Your task to perform on an android device: toggle show notifications on the lock screen Image 0: 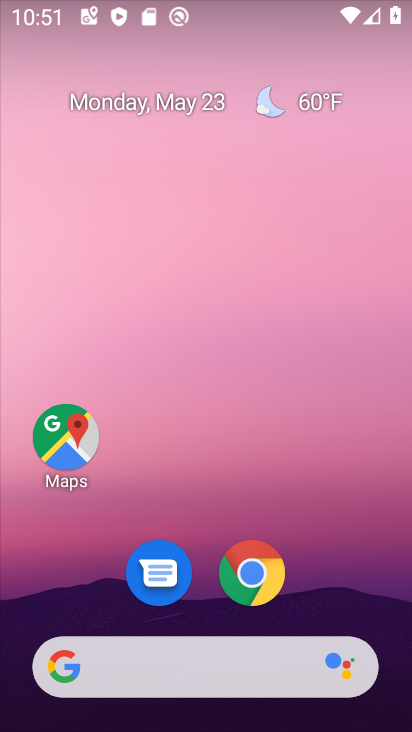
Step 0: drag from (338, 561) to (258, 19)
Your task to perform on an android device: toggle show notifications on the lock screen Image 1: 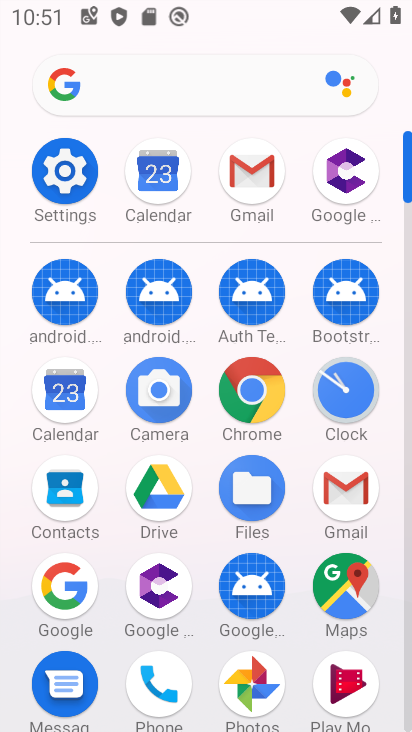
Step 1: drag from (20, 519) to (21, 191)
Your task to perform on an android device: toggle show notifications on the lock screen Image 2: 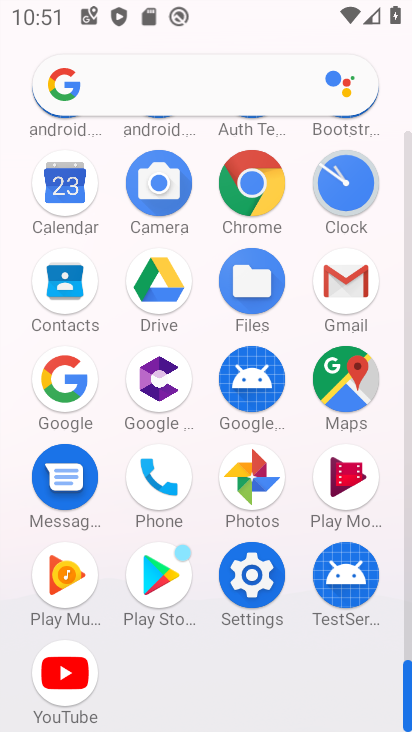
Step 2: click (249, 572)
Your task to perform on an android device: toggle show notifications on the lock screen Image 3: 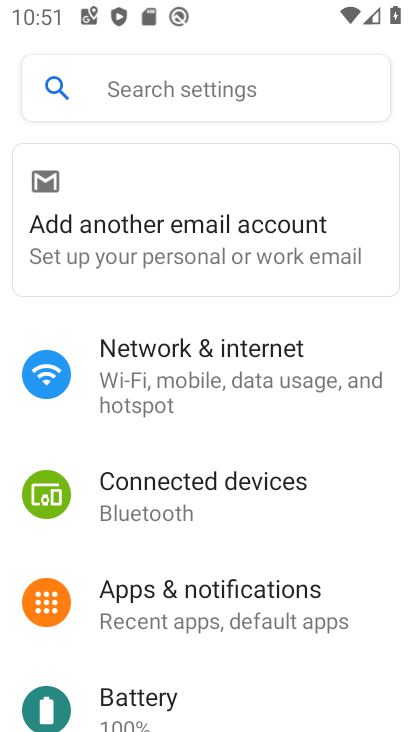
Step 3: drag from (331, 445) to (347, 173)
Your task to perform on an android device: toggle show notifications on the lock screen Image 4: 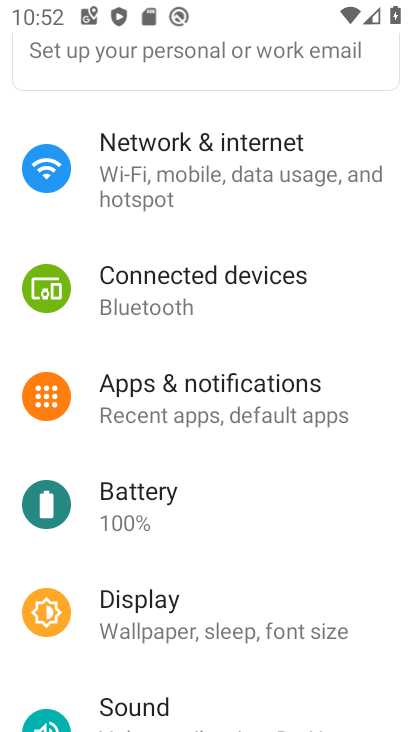
Step 4: click (218, 381)
Your task to perform on an android device: toggle show notifications on the lock screen Image 5: 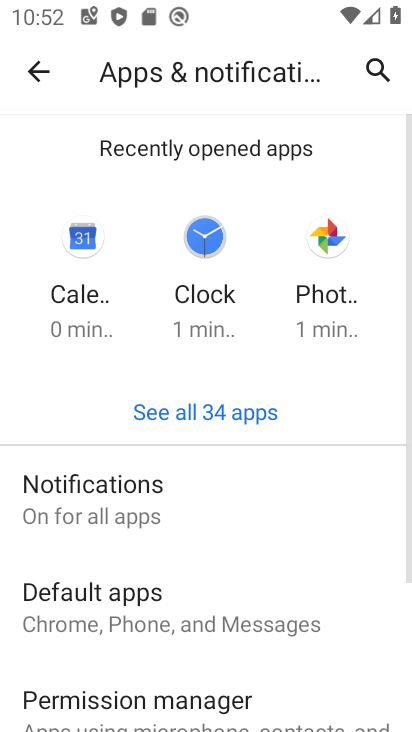
Step 5: click (146, 486)
Your task to perform on an android device: toggle show notifications on the lock screen Image 6: 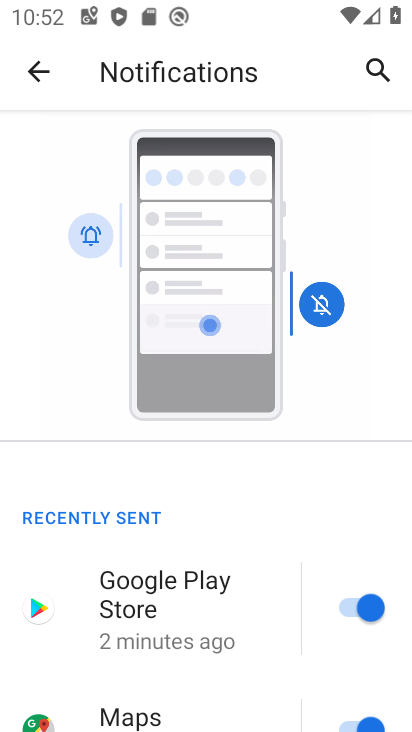
Step 6: drag from (248, 555) to (292, 136)
Your task to perform on an android device: toggle show notifications on the lock screen Image 7: 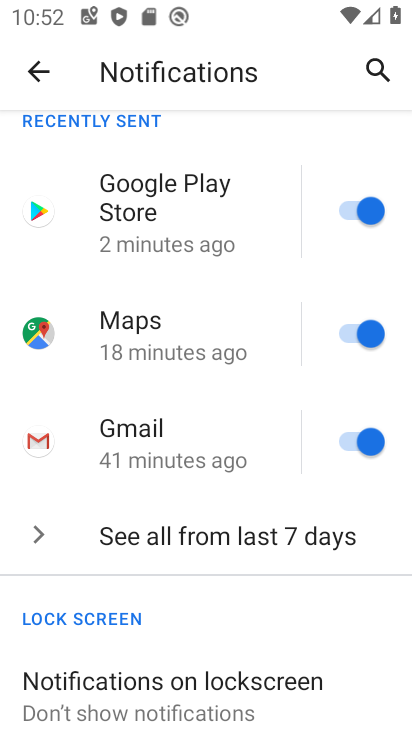
Step 7: drag from (218, 591) to (233, 170)
Your task to perform on an android device: toggle show notifications on the lock screen Image 8: 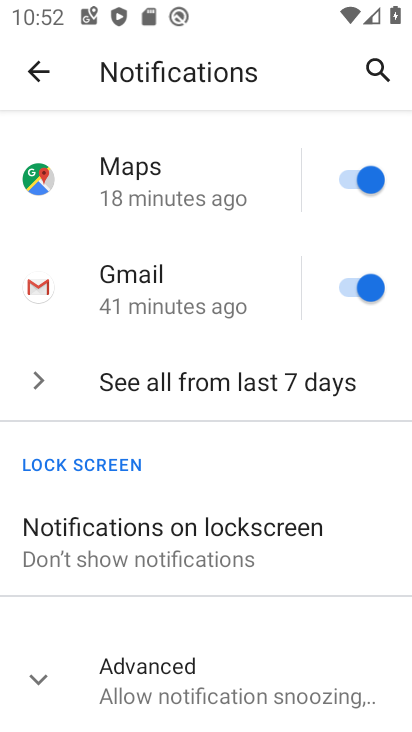
Step 8: click (153, 531)
Your task to perform on an android device: toggle show notifications on the lock screen Image 9: 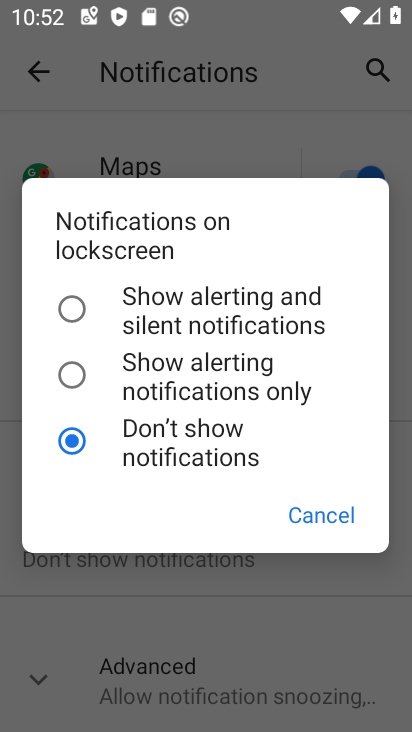
Step 9: click (187, 317)
Your task to perform on an android device: toggle show notifications on the lock screen Image 10: 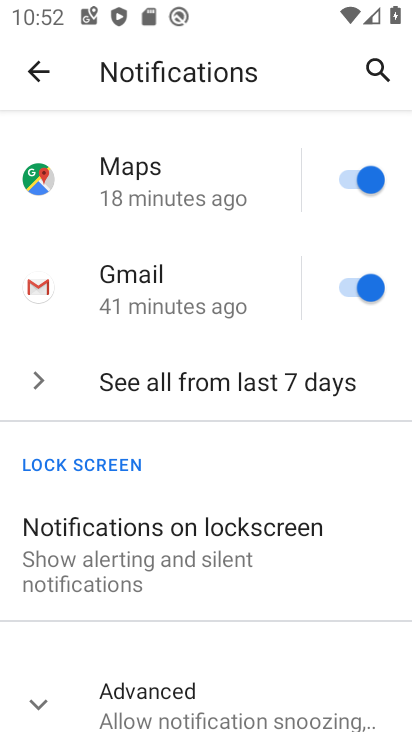
Step 10: task complete